Your task to perform on an android device: Open wifi settings Image 0: 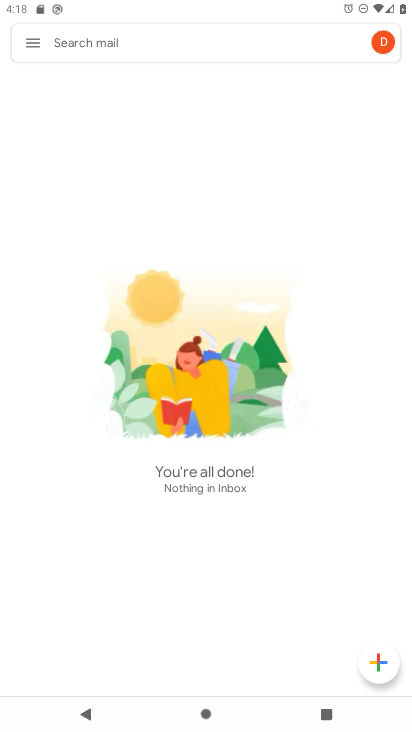
Step 0: press back button
Your task to perform on an android device: Open wifi settings Image 1: 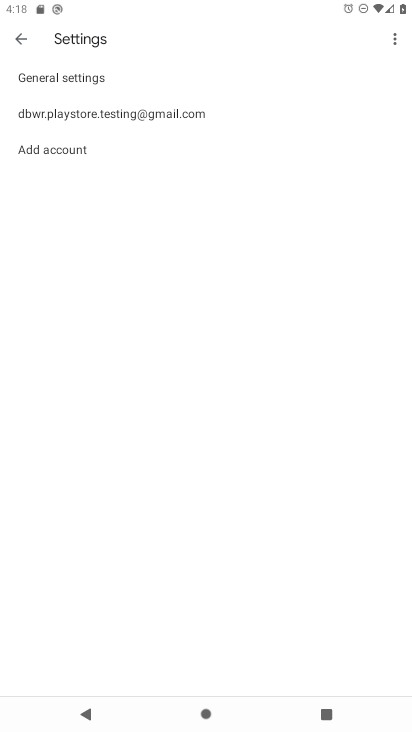
Step 1: press back button
Your task to perform on an android device: Open wifi settings Image 2: 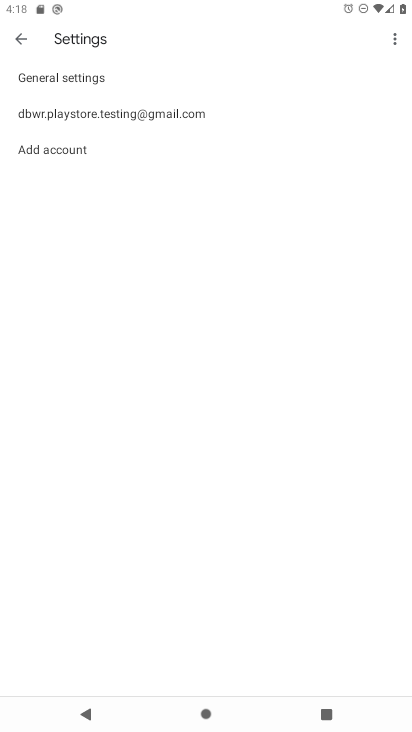
Step 2: press back button
Your task to perform on an android device: Open wifi settings Image 3: 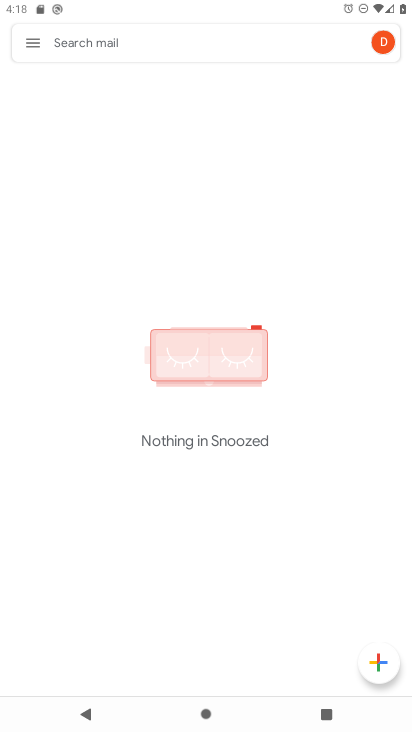
Step 3: press back button
Your task to perform on an android device: Open wifi settings Image 4: 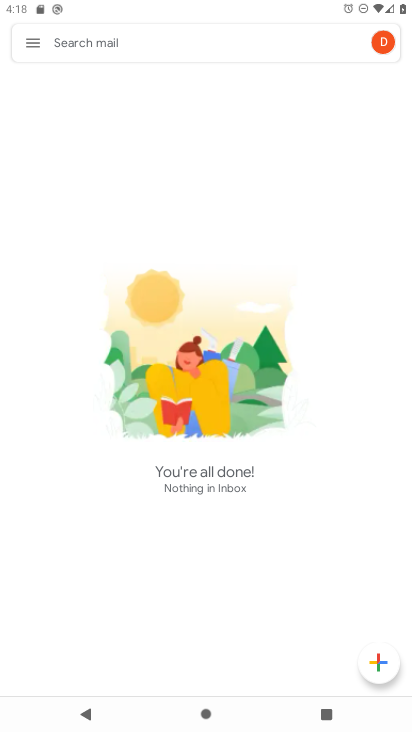
Step 4: press back button
Your task to perform on an android device: Open wifi settings Image 5: 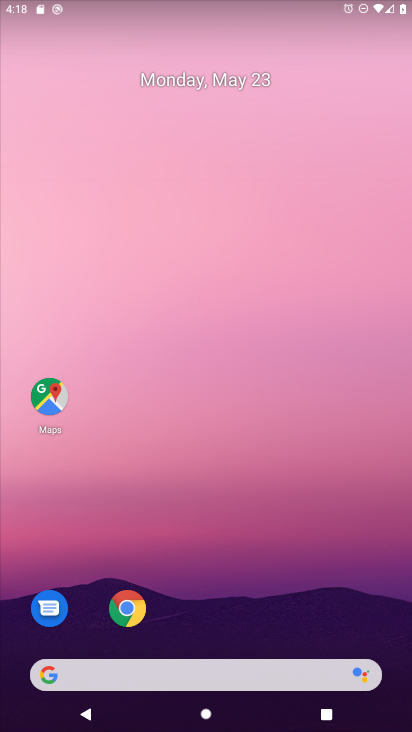
Step 5: drag from (244, 611) to (164, 147)
Your task to perform on an android device: Open wifi settings Image 6: 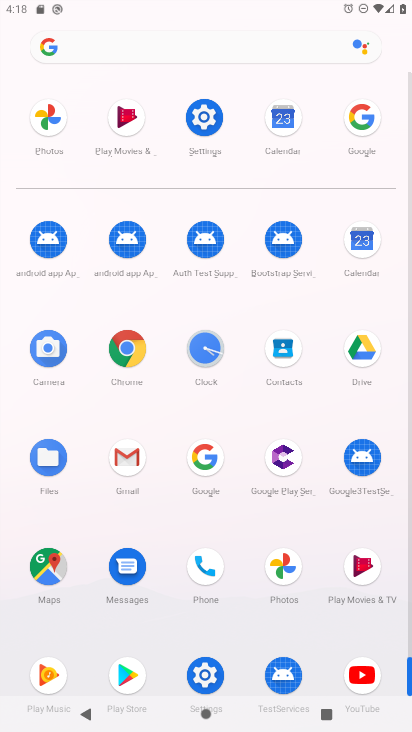
Step 6: click (205, 118)
Your task to perform on an android device: Open wifi settings Image 7: 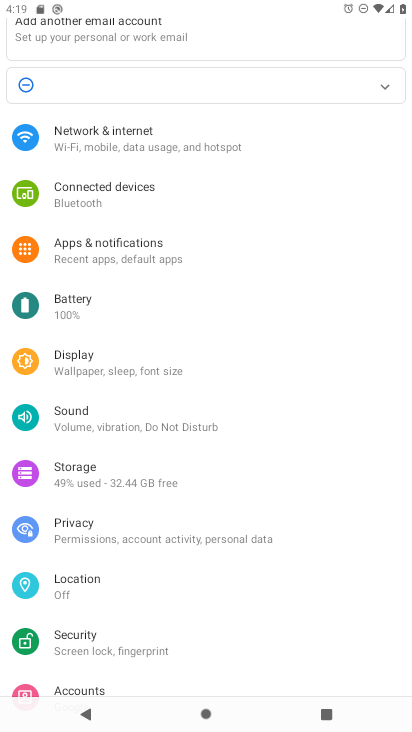
Step 7: click (149, 142)
Your task to perform on an android device: Open wifi settings Image 8: 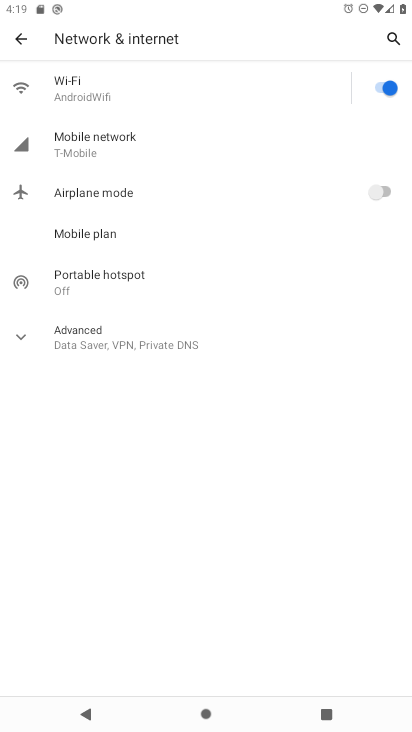
Step 8: click (90, 95)
Your task to perform on an android device: Open wifi settings Image 9: 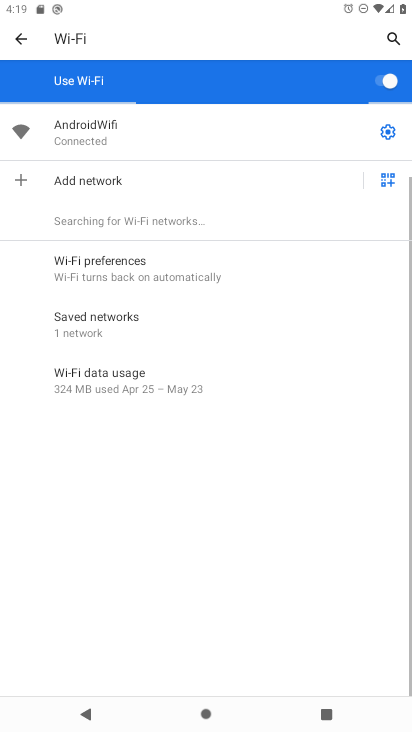
Step 9: click (386, 130)
Your task to perform on an android device: Open wifi settings Image 10: 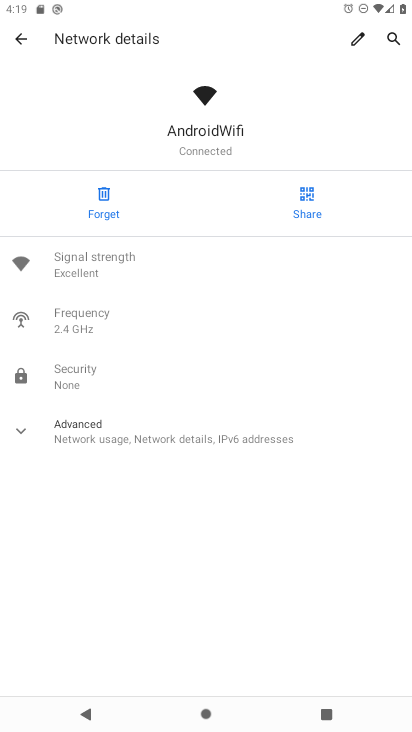
Step 10: task complete